Your task to perform on an android device: Go to notification settings Image 0: 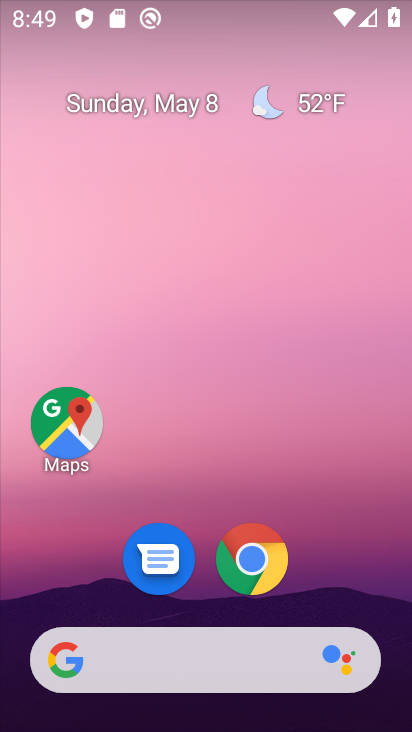
Step 0: drag from (339, 580) to (292, 1)
Your task to perform on an android device: Go to notification settings Image 1: 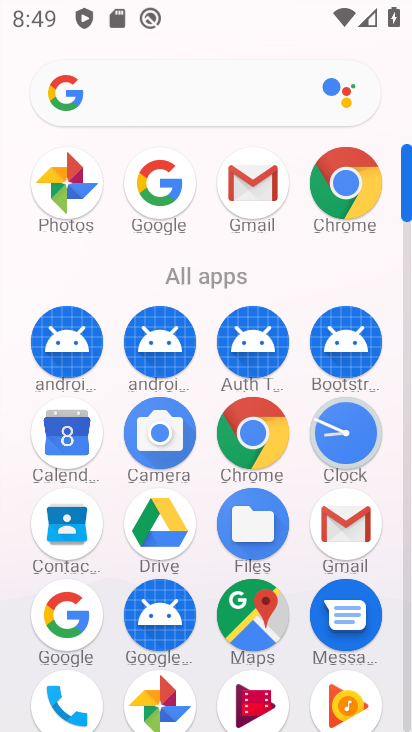
Step 1: drag from (201, 271) to (207, 7)
Your task to perform on an android device: Go to notification settings Image 2: 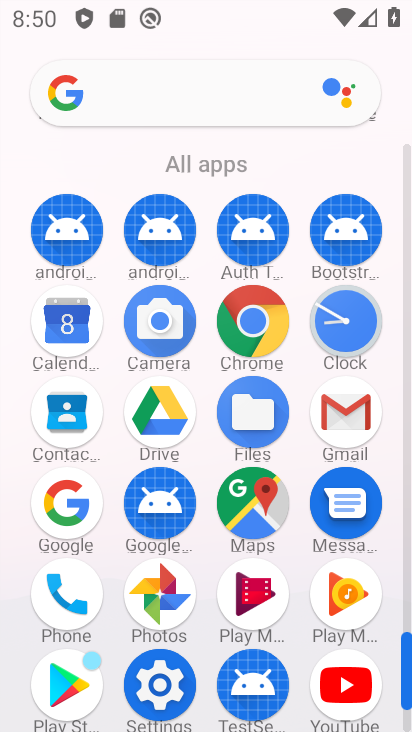
Step 2: click (151, 689)
Your task to perform on an android device: Go to notification settings Image 3: 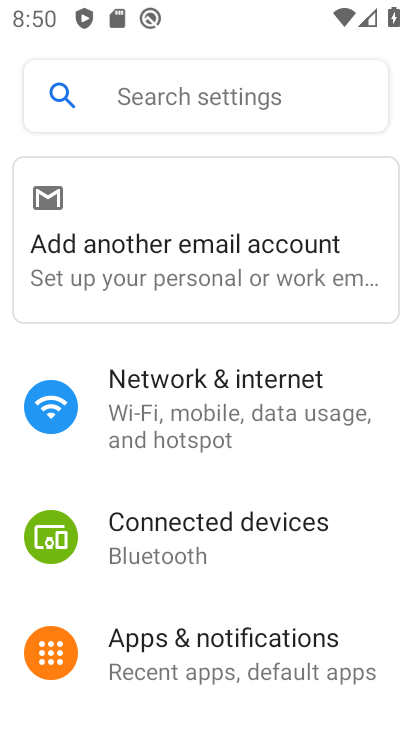
Step 3: click (202, 667)
Your task to perform on an android device: Go to notification settings Image 4: 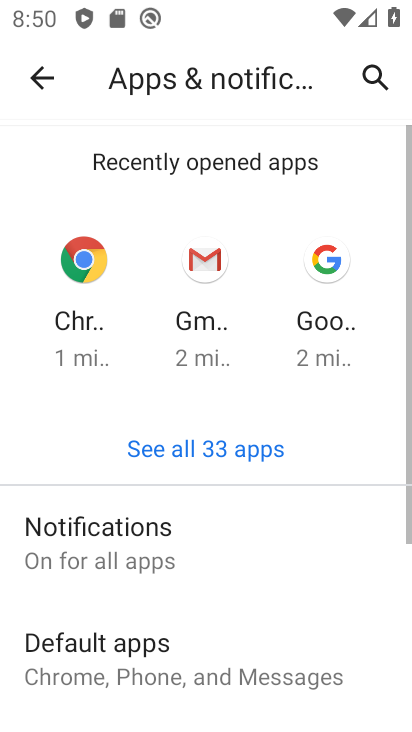
Step 4: drag from (238, 589) to (223, 476)
Your task to perform on an android device: Go to notification settings Image 5: 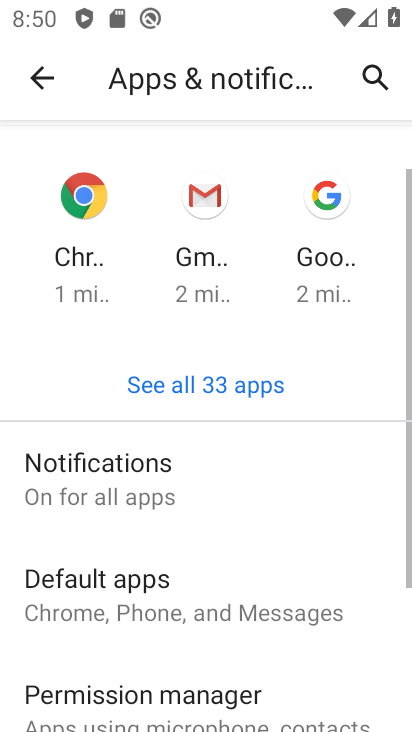
Step 5: click (215, 456)
Your task to perform on an android device: Go to notification settings Image 6: 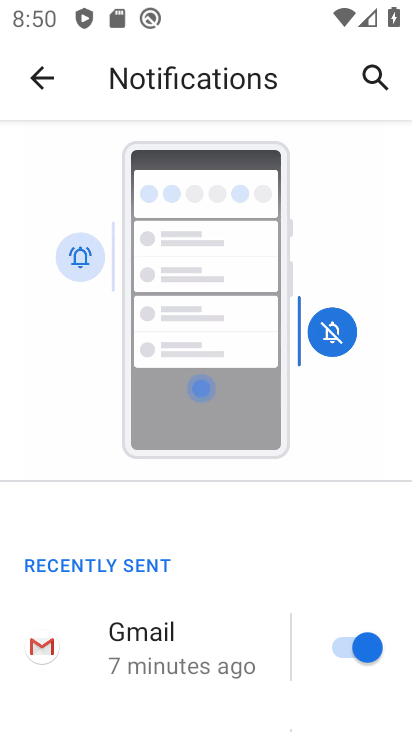
Step 6: task complete